Your task to perform on an android device: change the clock style Image 0: 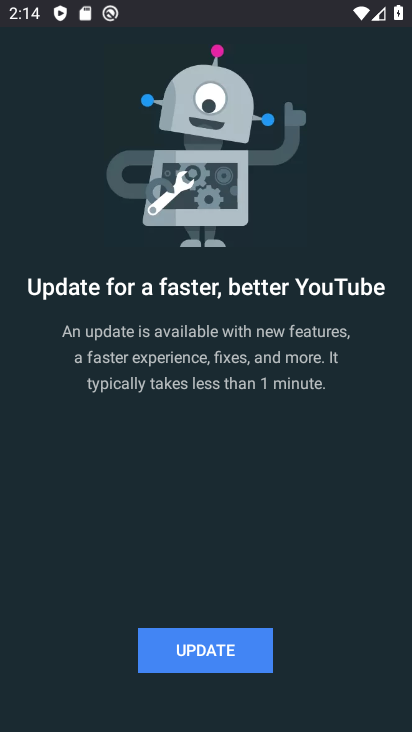
Step 0: press home button
Your task to perform on an android device: change the clock style Image 1: 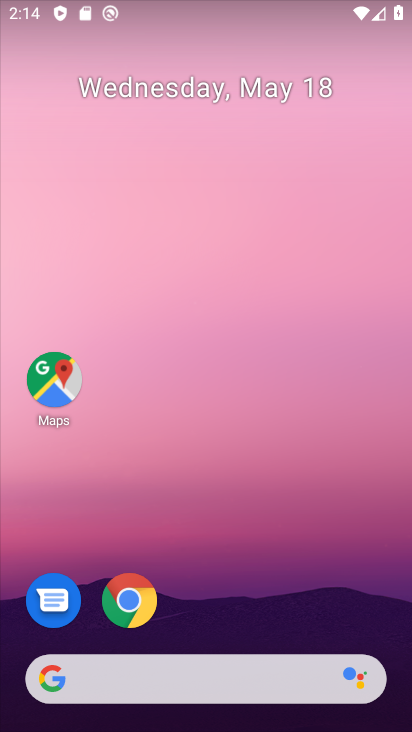
Step 1: drag from (180, 684) to (340, 128)
Your task to perform on an android device: change the clock style Image 2: 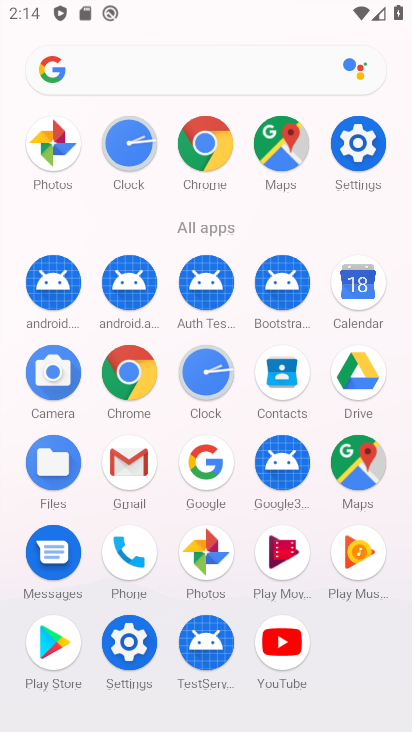
Step 2: click (119, 149)
Your task to perform on an android device: change the clock style Image 3: 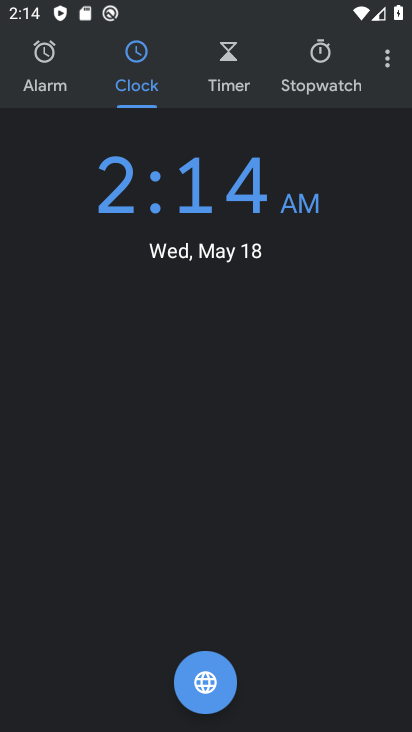
Step 3: click (390, 60)
Your task to perform on an android device: change the clock style Image 4: 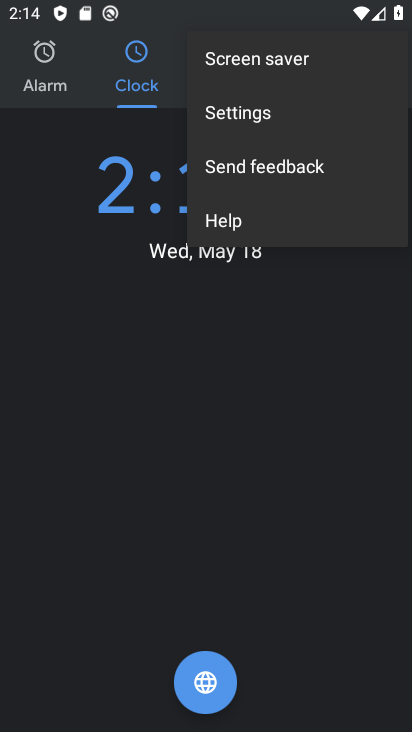
Step 4: click (255, 116)
Your task to perform on an android device: change the clock style Image 5: 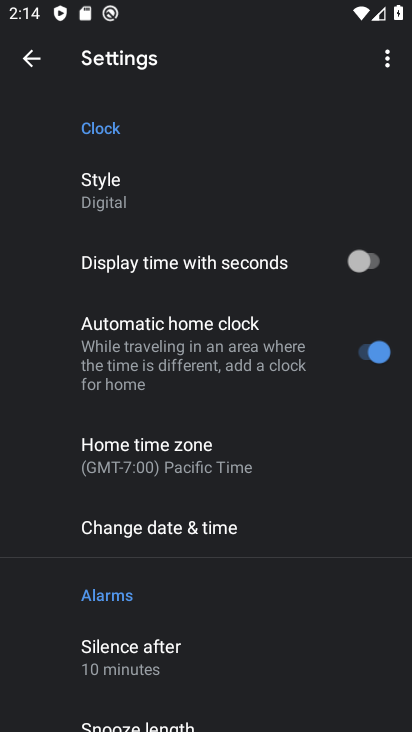
Step 5: click (118, 196)
Your task to perform on an android device: change the clock style Image 6: 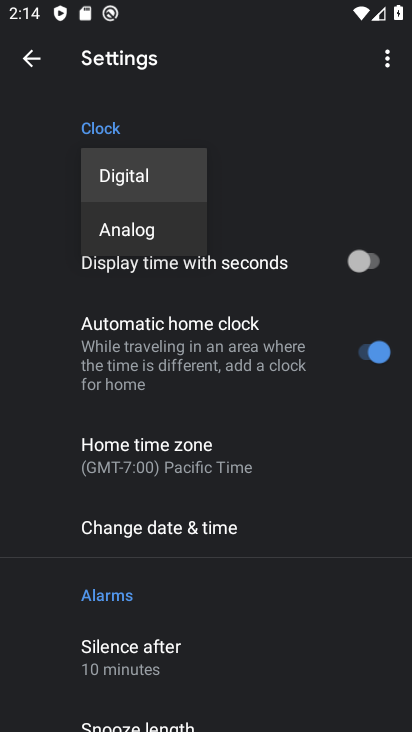
Step 6: click (151, 228)
Your task to perform on an android device: change the clock style Image 7: 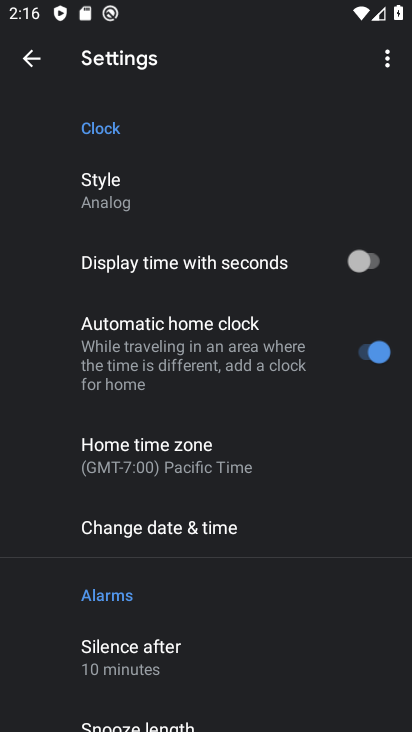
Step 7: task complete